Your task to perform on an android device: Open Yahoo.com Image 0: 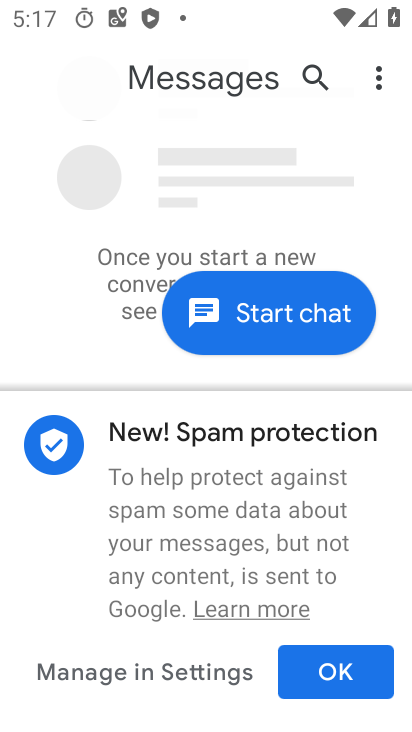
Step 0: press home button
Your task to perform on an android device: Open Yahoo.com Image 1: 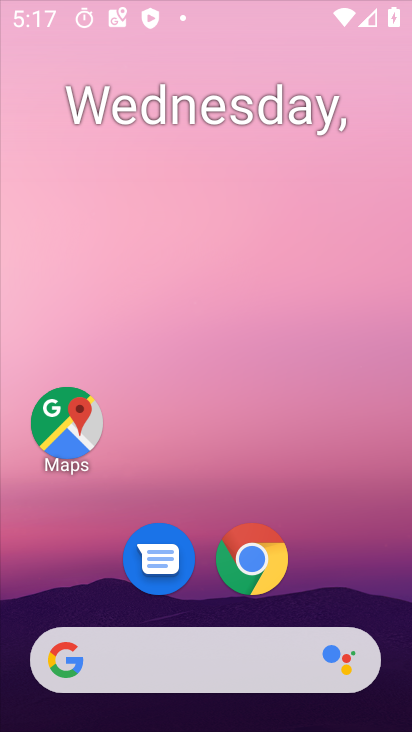
Step 1: click (260, 528)
Your task to perform on an android device: Open Yahoo.com Image 2: 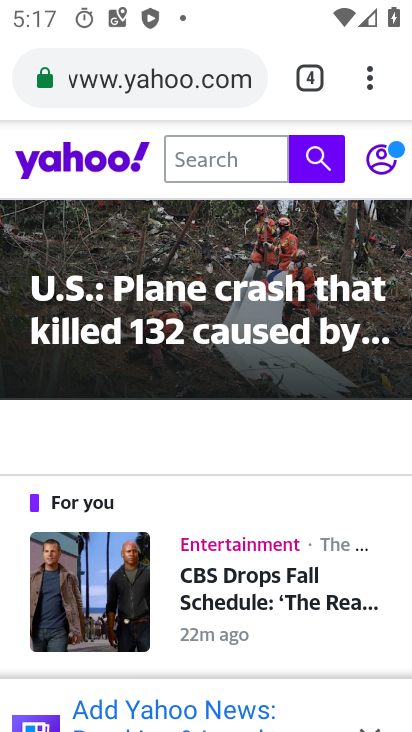
Step 2: task complete